Your task to perform on an android device: toggle pop-ups in chrome Image 0: 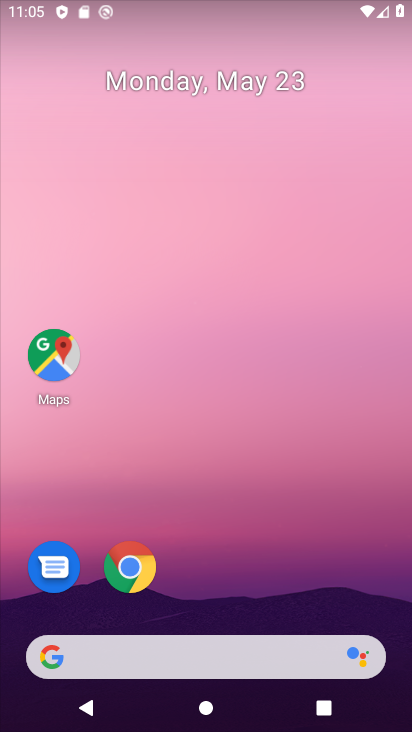
Step 0: drag from (390, 593) to (331, 79)
Your task to perform on an android device: toggle pop-ups in chrome Image 1: 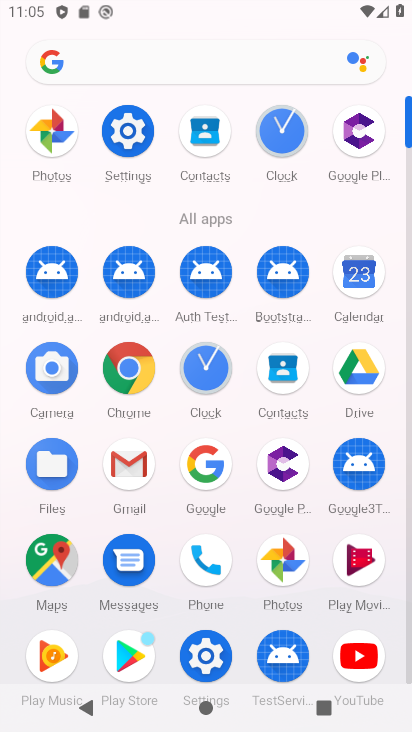
Step 1: click (123, 378)
Your task to perform on an android device: toggle pop-ups in chrome Image 2: 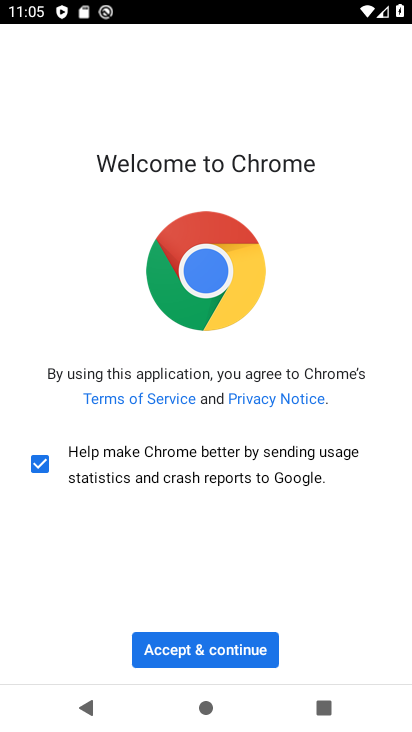
Step 2: click (216, 657)
Your task to perform on an android device: toggle pop-ups in chrome Image 3: 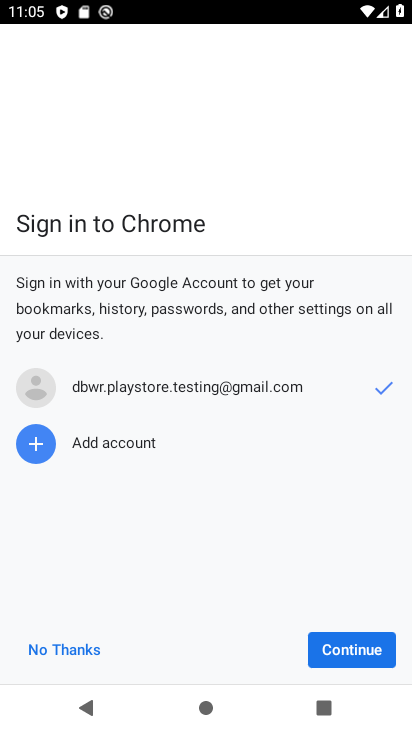
Step 3: click (341, 648)
Your task to perform on an android device: toggle pop-ups in chrome Image 4: 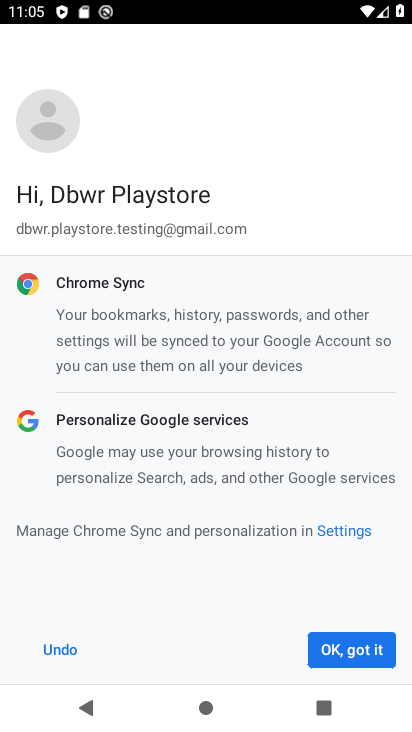
Step 4: click (343, 653)
Your task to perform on an android device: toggle pop-ups in chrome Image 5: 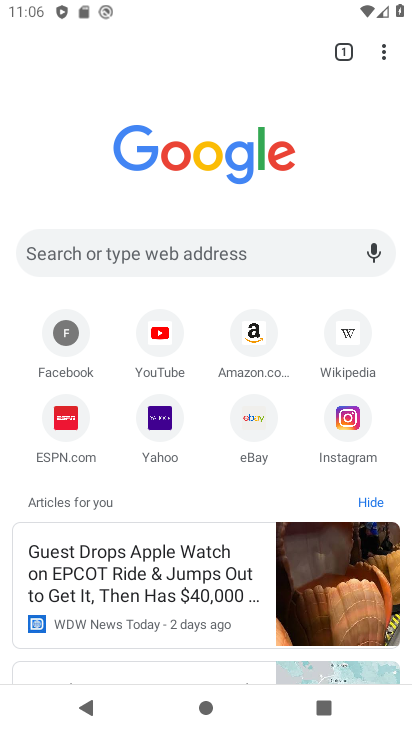
Step 5: drag from (379, 56) to (291, 431)
Your task to perform on an android device: toggle pop-ups in chrome Image 6: 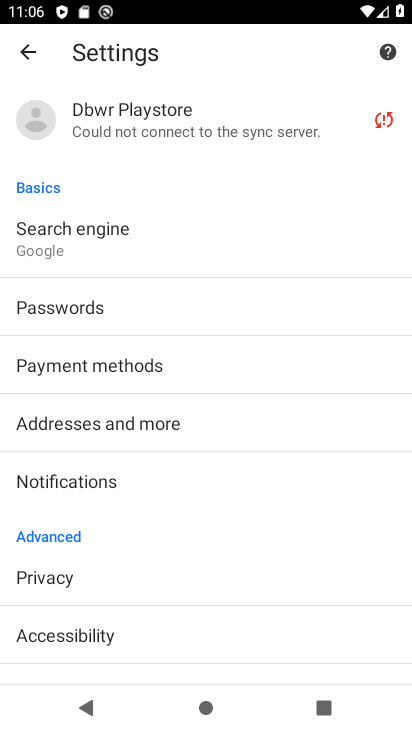
Step 6: drag from (273, 612) to (217, 133)
Your task to perform on an android device: toggle pop-ups in chrome Image 7: 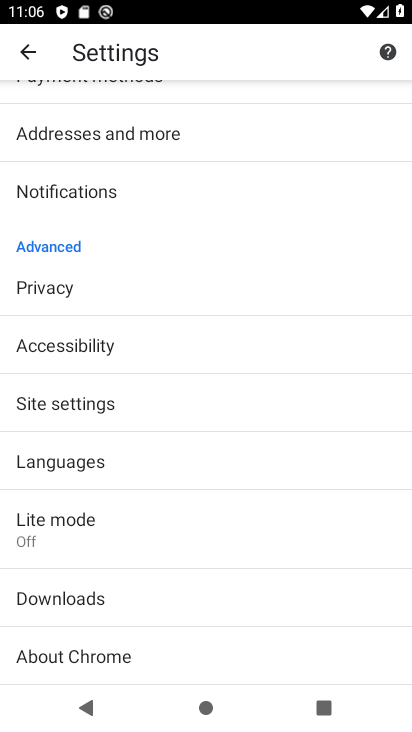
Step 7: click (122, 406)
Your task to perform on an android device: toggle pop-ups in chrome Image 8: 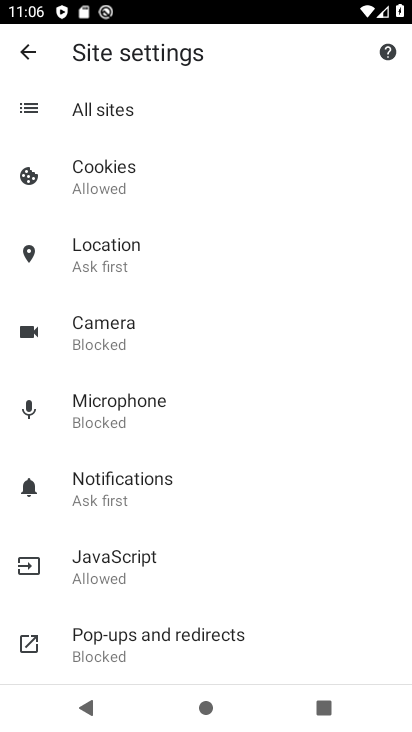
Step 8: drag from (216, 575) to (191, 273)
Your task to perform on an android device: toggle pop-ups in chrome Image 9: 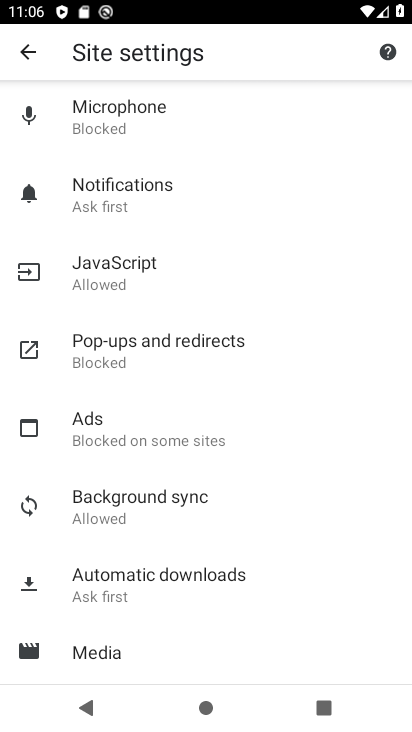
Step 9: click (201, 342)
Your task to perform on an android device: toggle pop-ups in chrome Image 10: 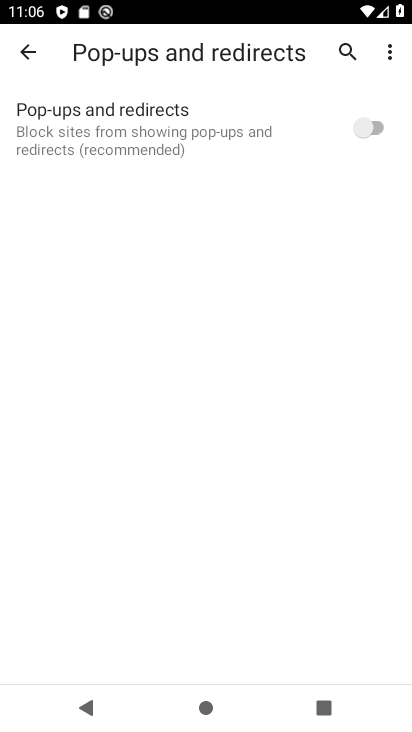
Step 10: click (381, 132)
Your task to perform on an android device: toggle pop-ups in chrome Image 11: 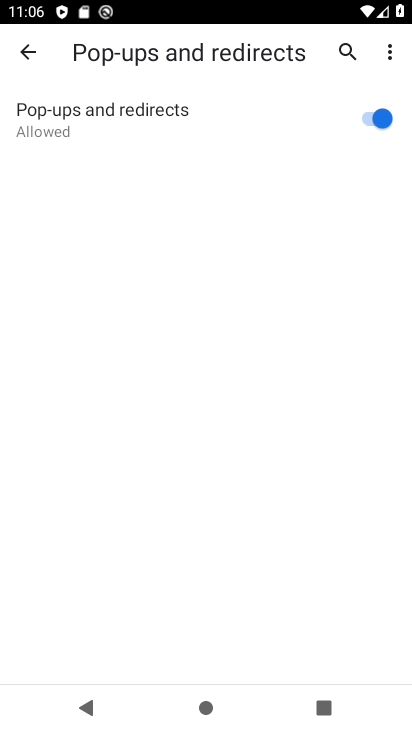
Step 11: task complete